Your task to perform on an android device: Open the phone app and click the voicemail tab. Image 0: 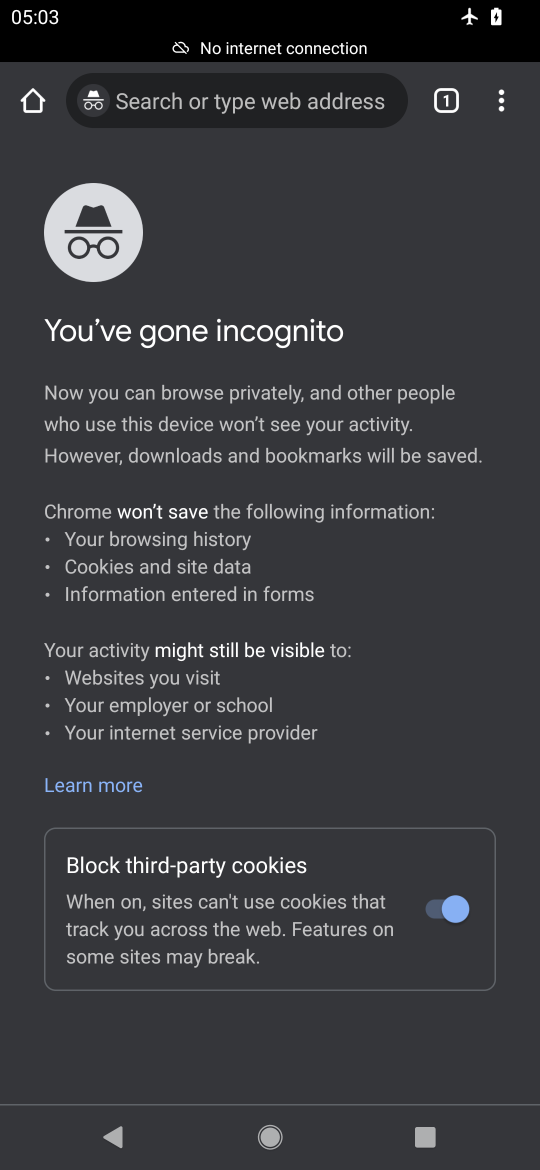
Step 0: press home button
Your task to perform on an android device: Open the phone app and click the voicemail tab. Image 1: 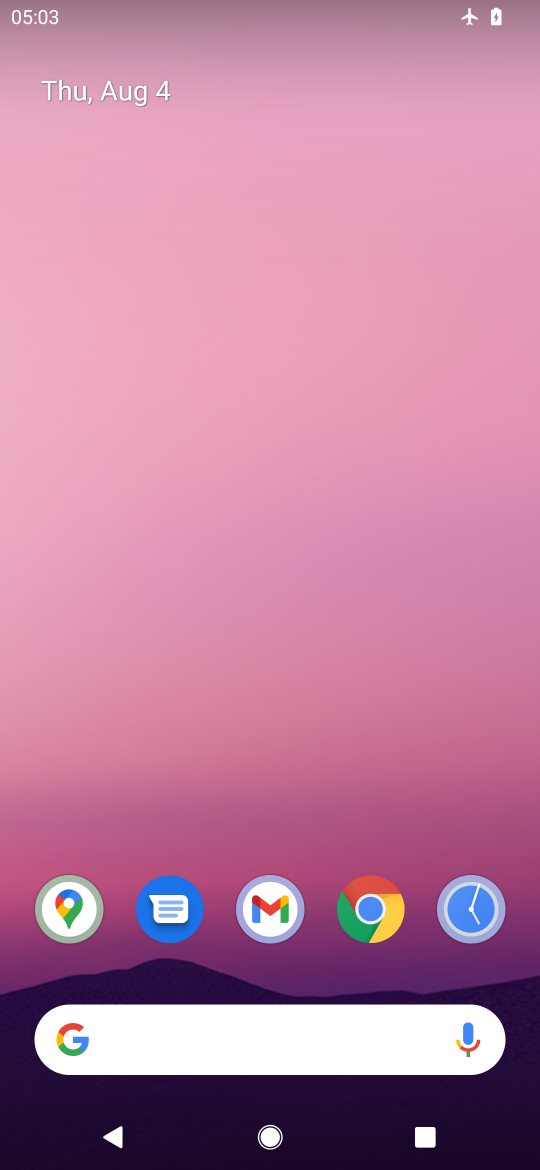
Step 1: drag from (274, 780) to (337, 277)
Your task to perform on an android device: Open the phone app and click the voicemail tab. Image 2: 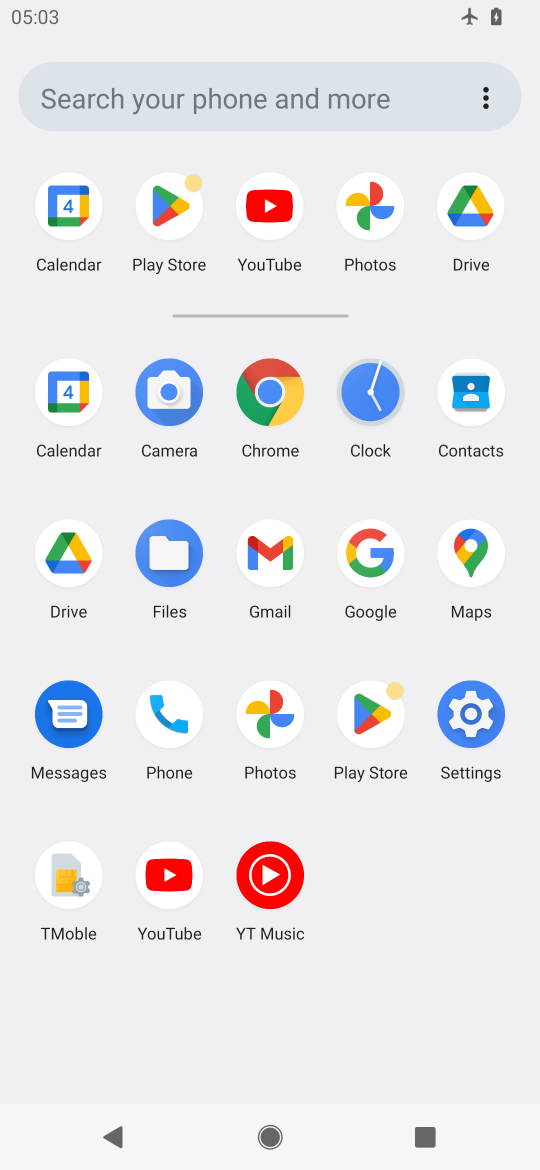
Step 2: click (164, 721)
Your task to perform on an android device: Open the phone app and click the voicemail tab. Image 3: 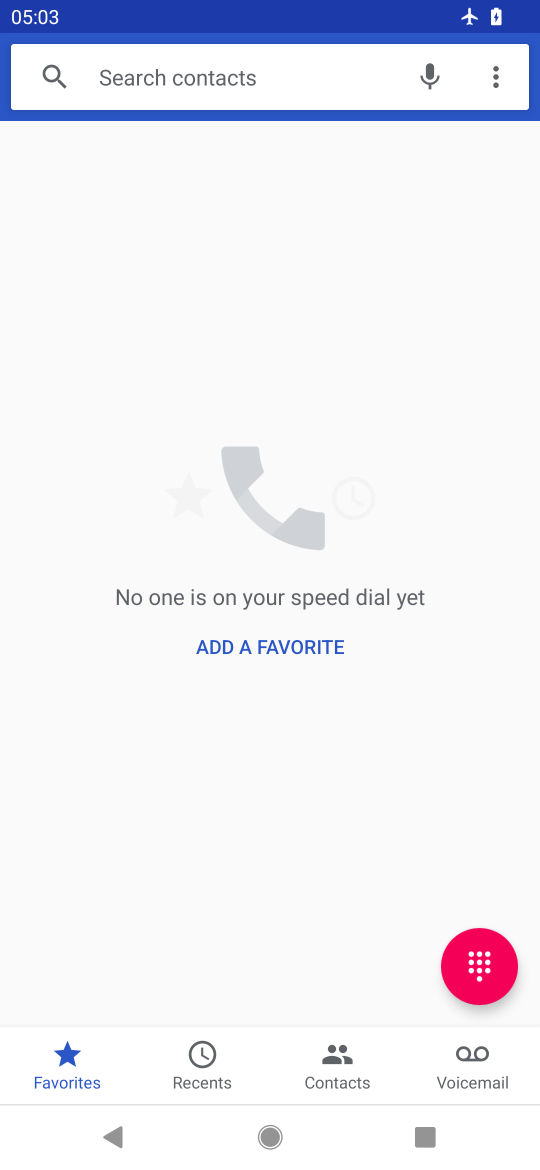
Step 3: click (454, 1063)
Your task to perform on an android device: Open the phone app and click the voicemail tab. Image 4: 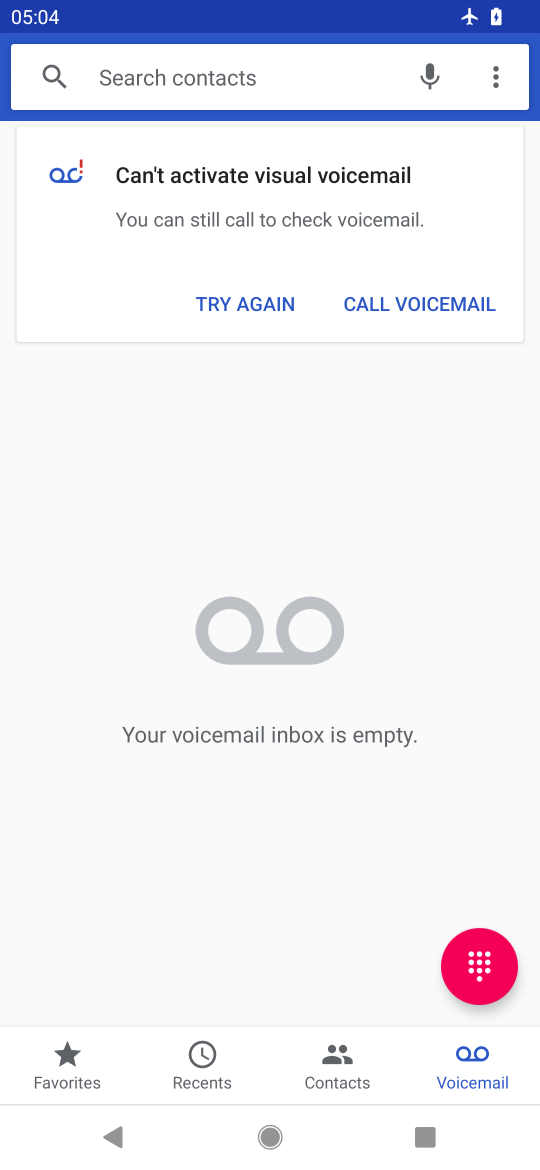
Step 4: task complete